Your task to perform on an android device: Search for sushi restaurants on Maps Image 0: 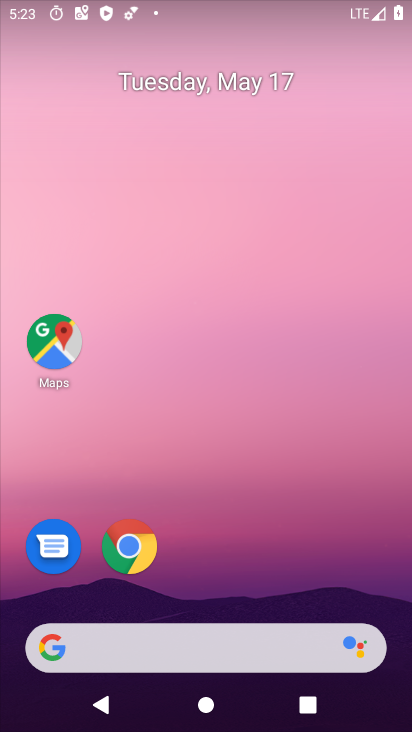
Step 0: drag from (258, 575) to (252, 143)
Your task to perform on an android device: Search for sushi restaurants on Maps Image 1: 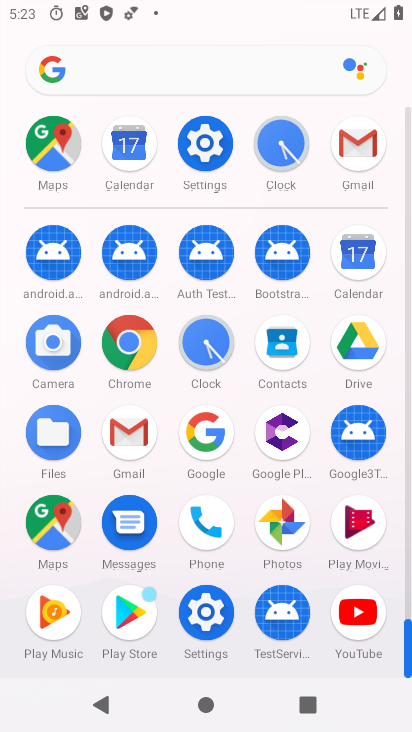
Step 1: click (57, 170)
Your task to perform on an android device: Search for sushi restaurants on Maps Image 2: 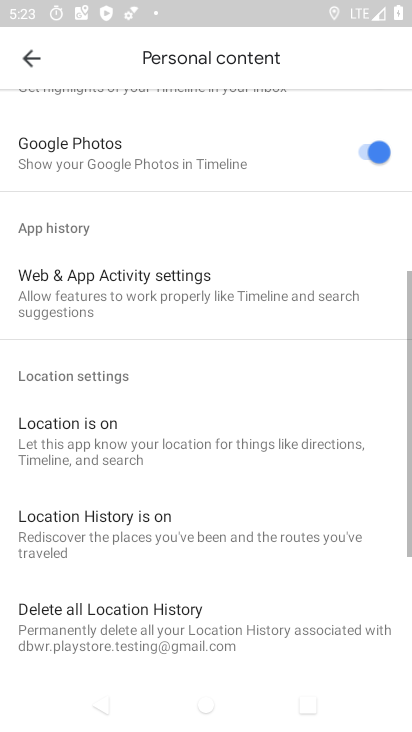
Step 2: click (30, 63)
Your task to perform on an android device: Search for sushi restaurants on Maps Image 3: 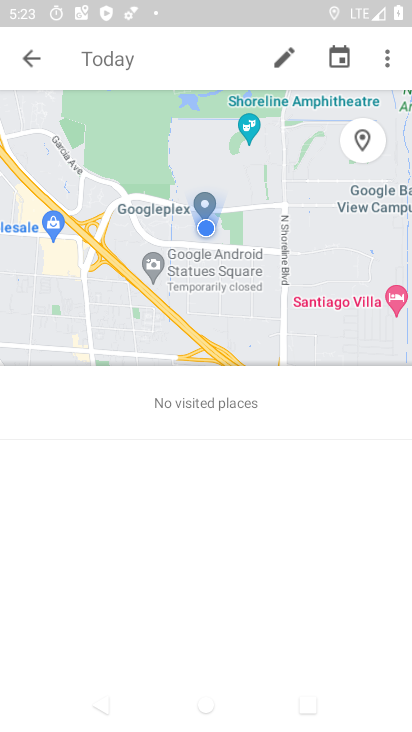
Step 3: click (28, 64)
Your task to perform on an android device: Search for sushi restaurants on Maps Image 4: 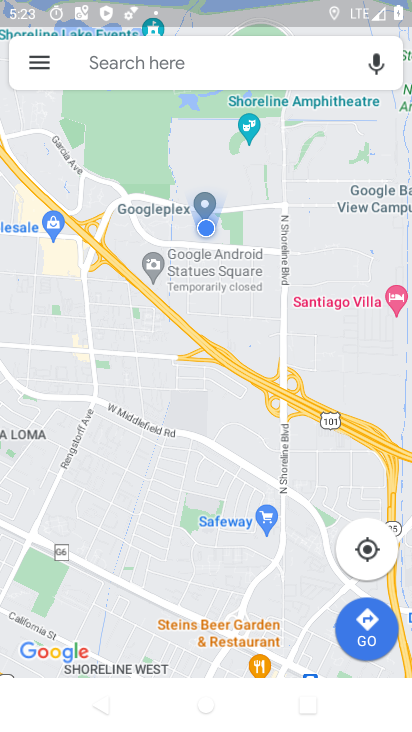
Step 4: click (147, 70)
Your task to perform on an android device: Search for sushi restaurants on Maps Image 5: 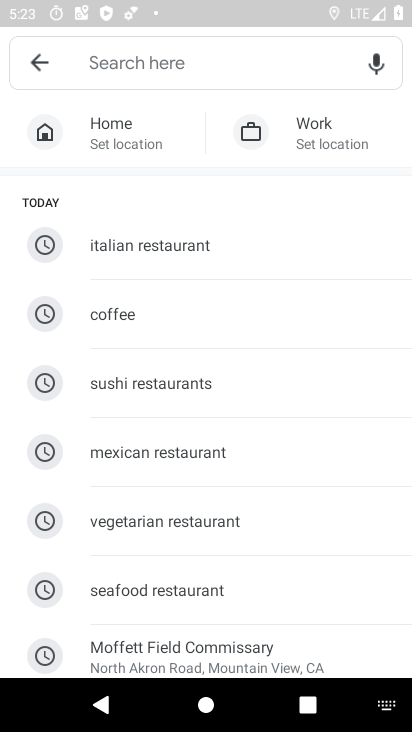
Step 5: click (175, 378)
Your task to perform on an android device: Search for sushi restaurants on Maps Image 6: 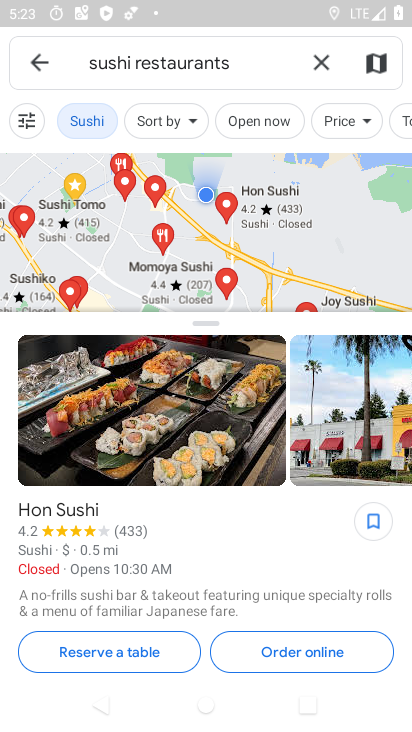
Step 6: task complete